Your task to perform on an android device: What is the news today? Image 0: 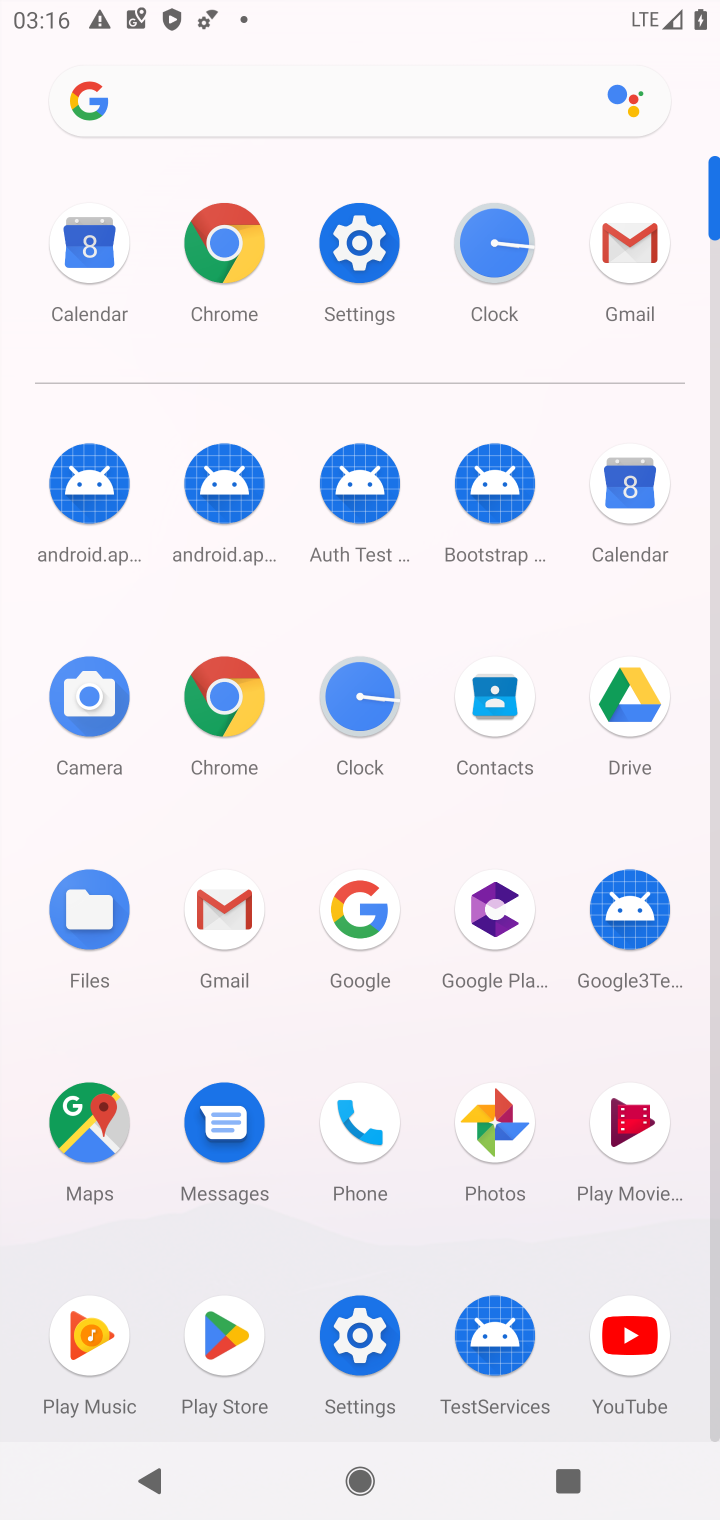
Step 0: press home button
Your task to perform on an android device: What is the news today? Image 1: 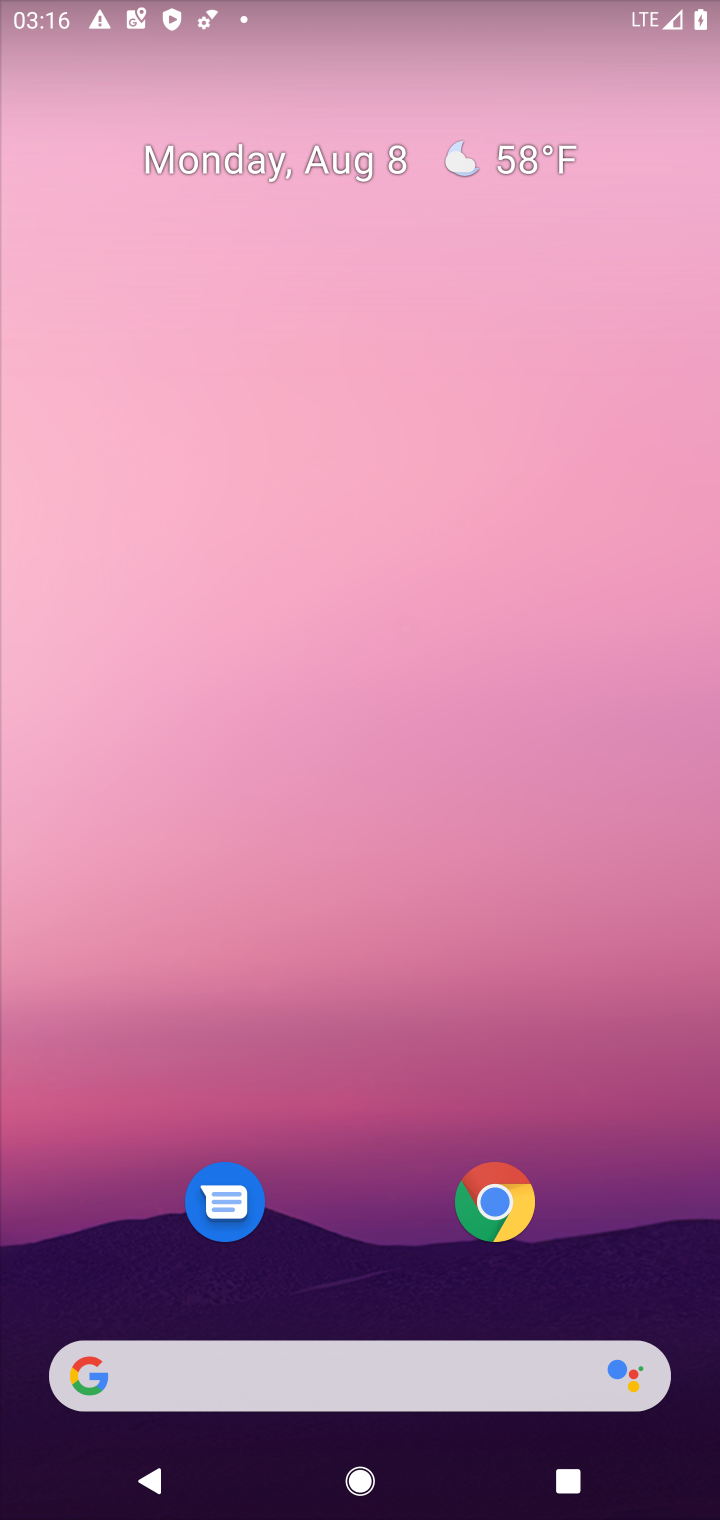
Step 1: drag from (374, 1274) to (353, 124)
Your task to perform on an android device: What is the news today? Image 2: 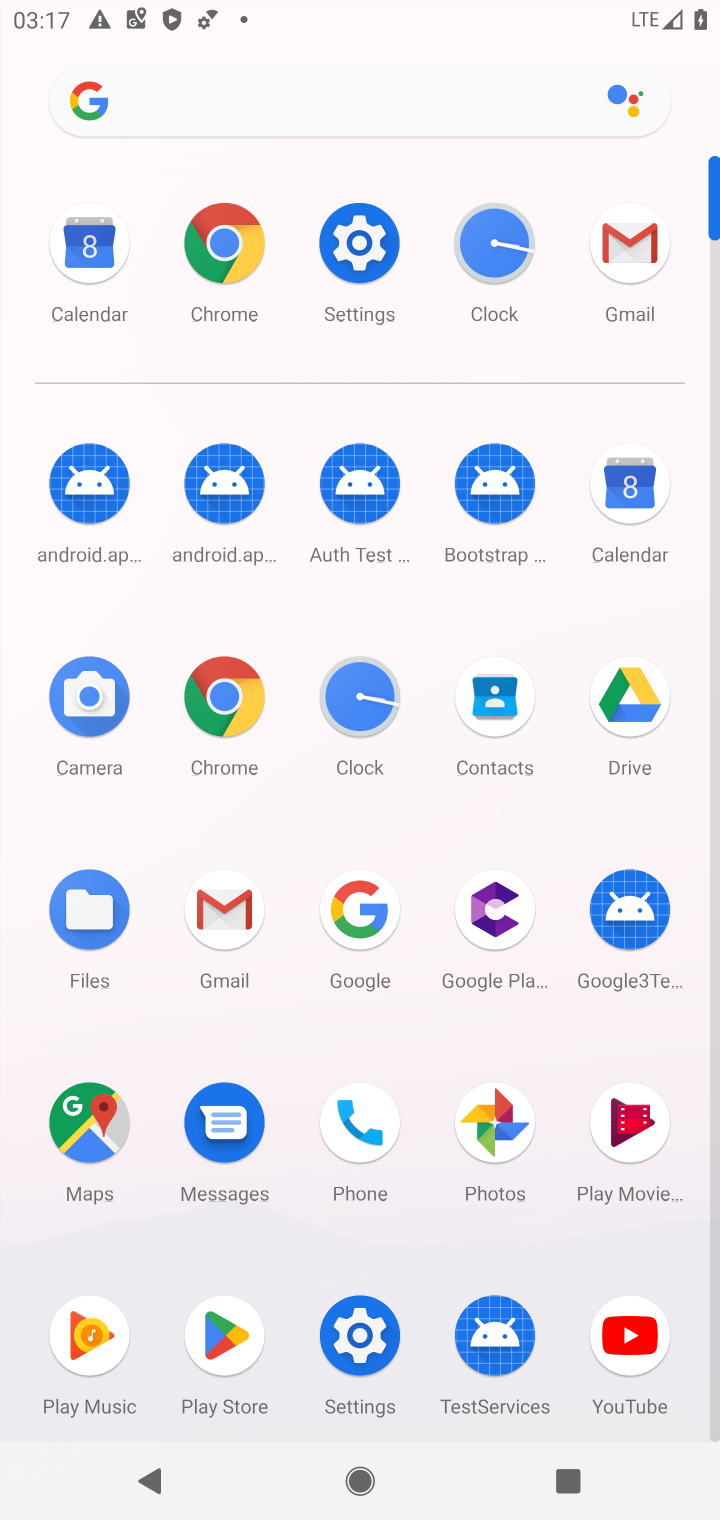
Step 2: click (342, 931)
Your task to perform on an android device: What is the news today? Image 3: 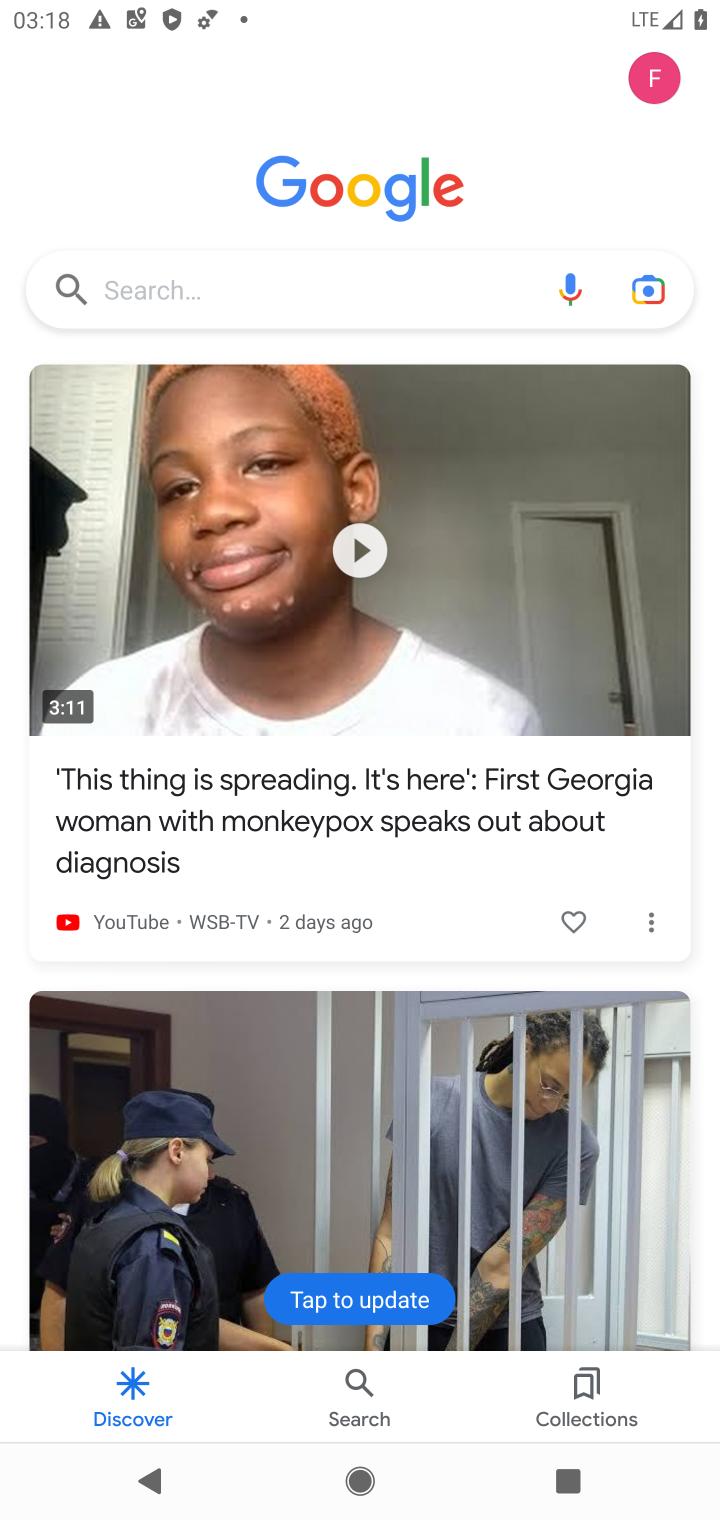
Step 3: click (343, 297)
Your task to perform on an android device: What is the news today? Image 4: 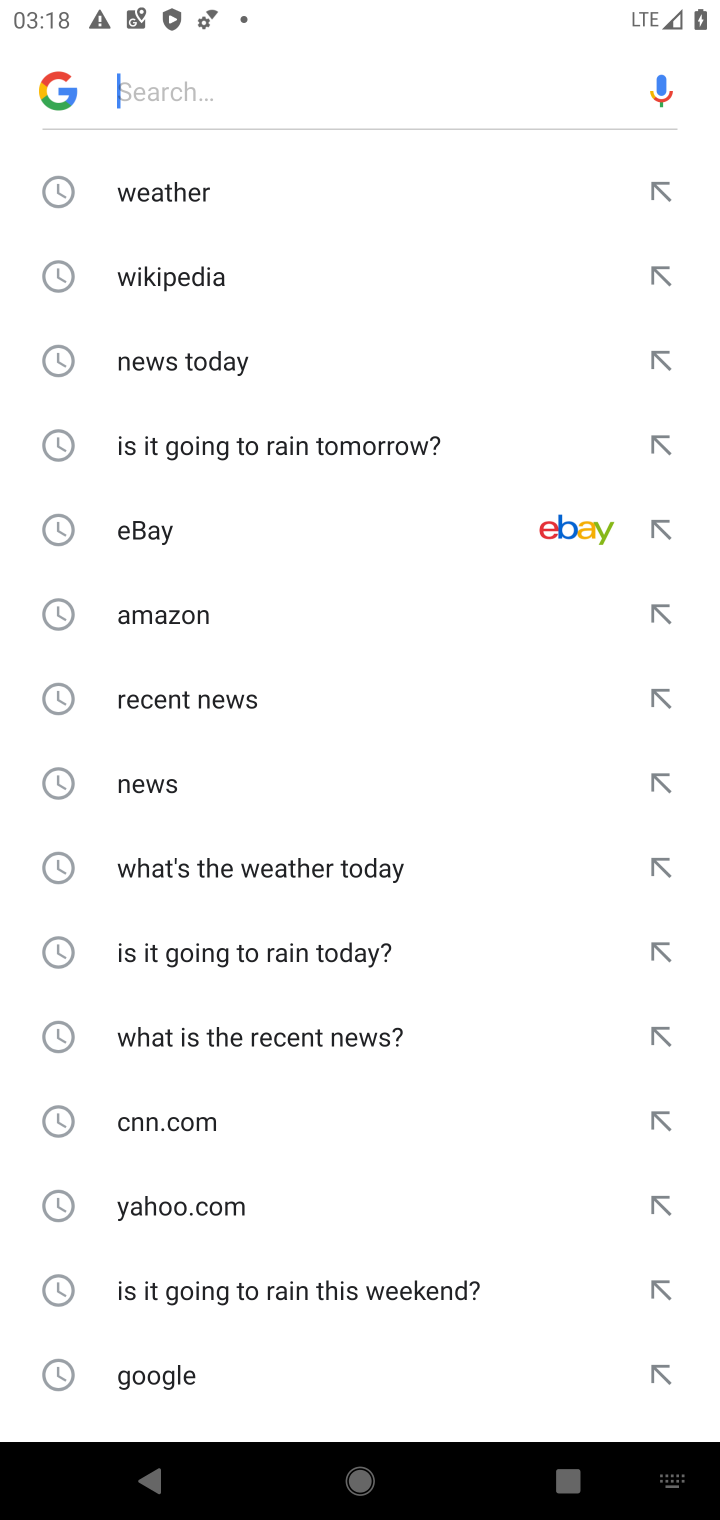
Step 4: click (202, 359)
Your task to perform on an android device: What is the news today? Image 5: 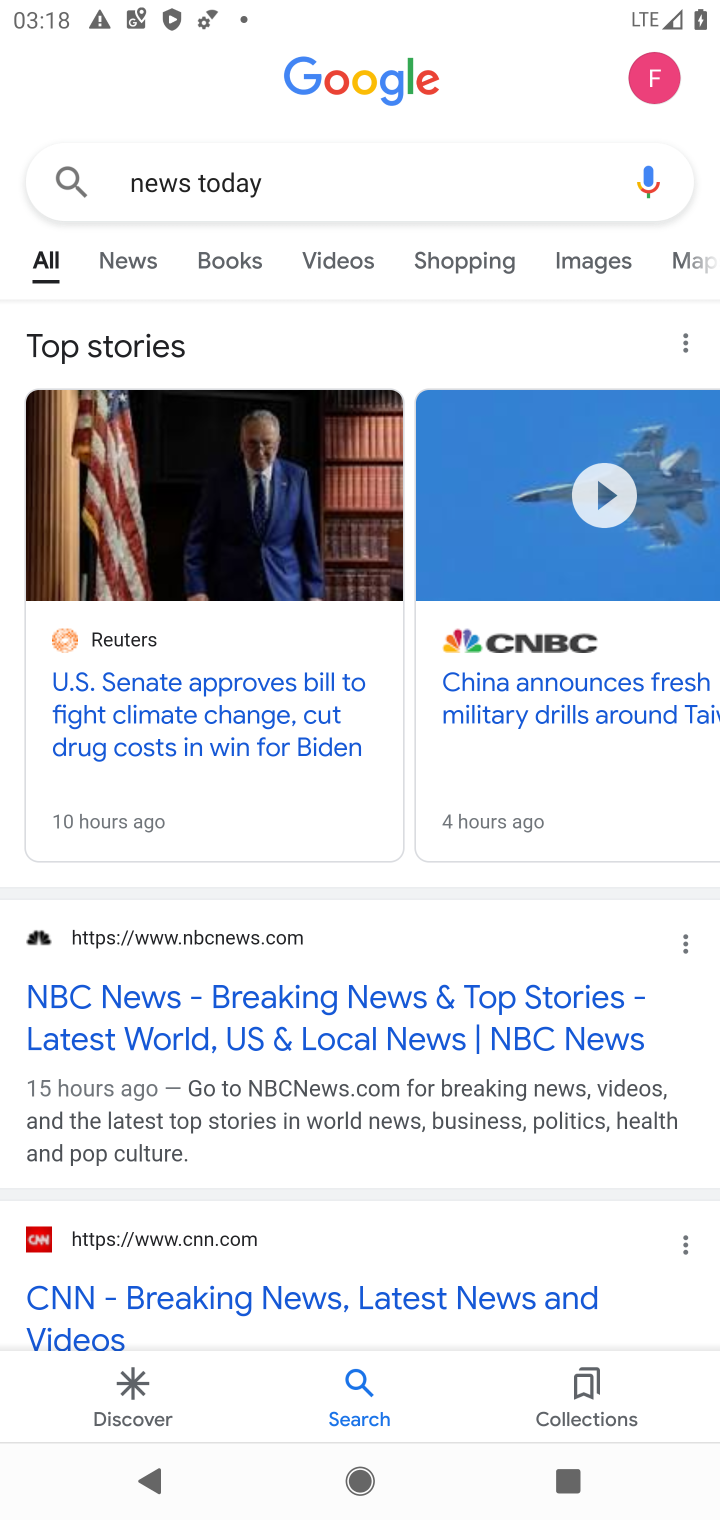
Step 5: task complete